Your task to perform on an android device: Search for hotels in London Image 0: 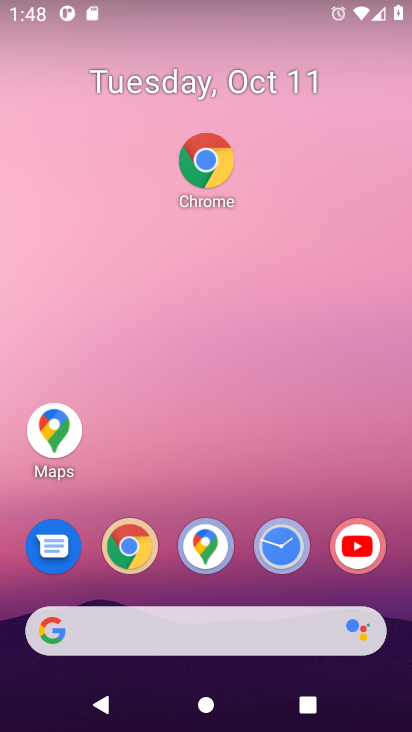
Step 0: click (122, 555)
Your task to perform on an android device: Search for hotels in London Image 1: 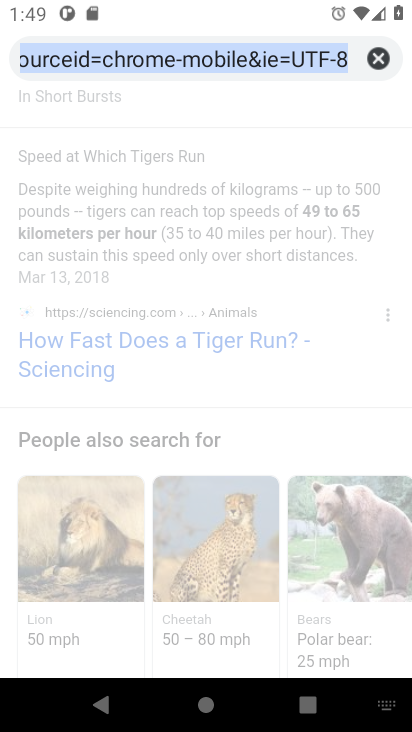
Step 1: type "hotels in London"
Your task to perform on an android device: Search for hotels in London Image 2: 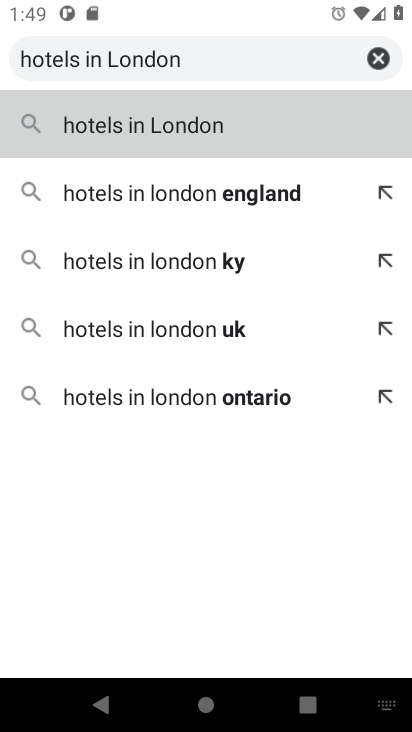
Step 2: press enter
Your task to perform on an android device: Search for hotels in London Image 3: 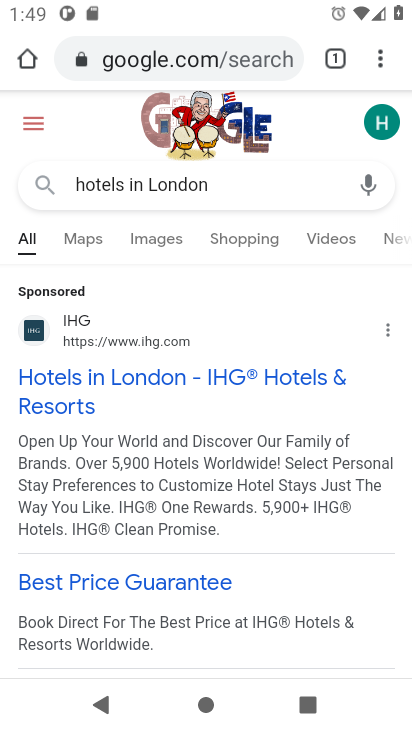
Step 3: drag from (216, 522) to (230, 354)
Your task to perform on an android device: Search for hotels in London Image 4: 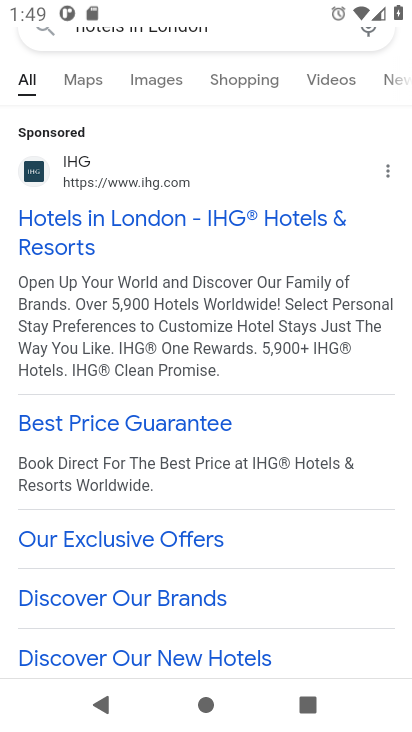
Step 4: click (230, 354)
Your task to perform on an android device: Search for hotels in London Image 5: 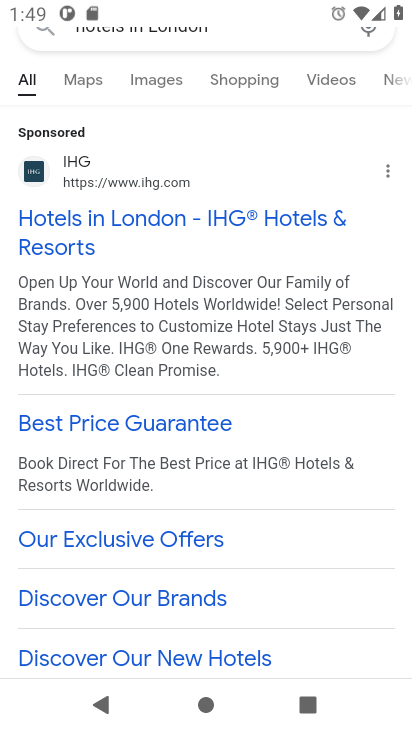
Step 5: click (233, 348)
Your task to perform on an android device: Search for hotels in London Image 6: 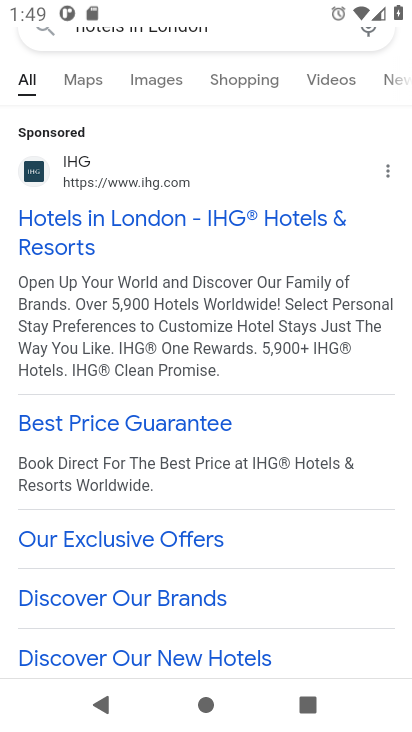
Step 6: drag from (235, 330) to (227, 225)
Your task to perform on an android device: Search for hotels in London Image 7: 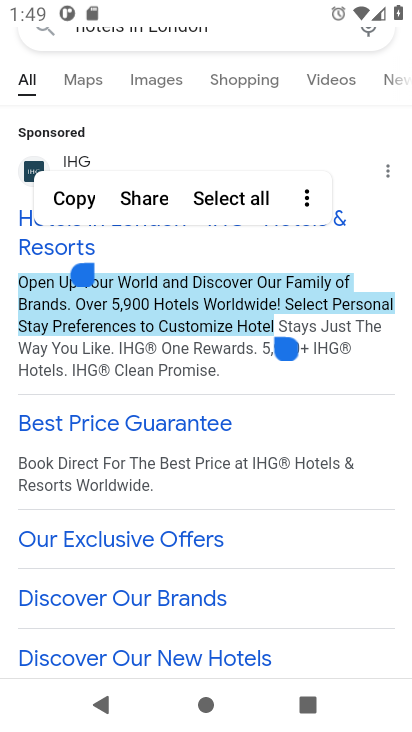
Step 7: drag from (340, 620) to (343, 426)
Your task to perform on an android device: Search for hotels in London Image 8: 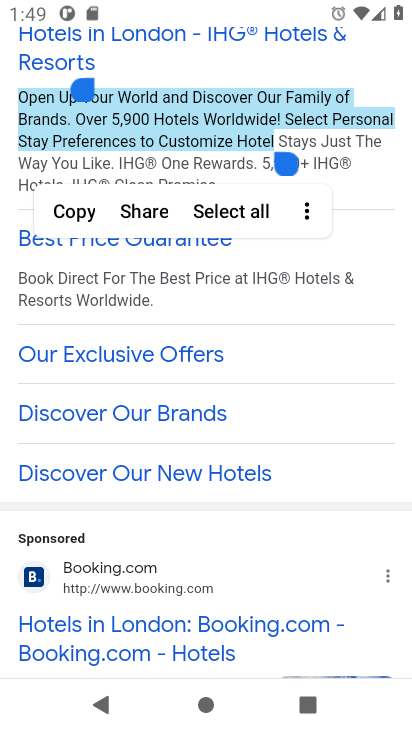
Step 8: click (336, 313)
Your task to perform on an android device: Search for hotels in London Image 9: 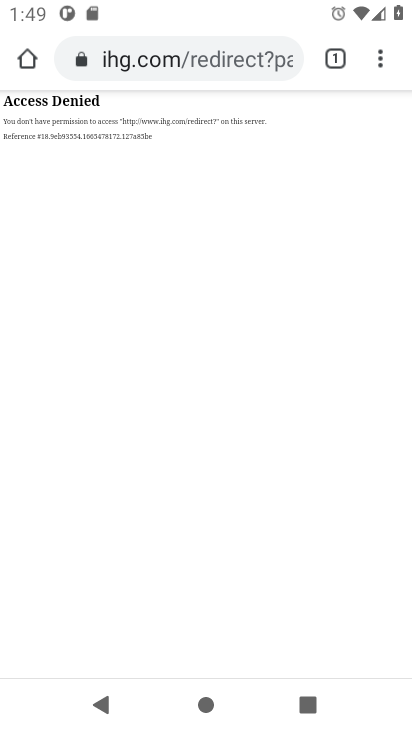
Step 9: press back button
Your task to perform on an android device: Search for hotels in London Image 10: 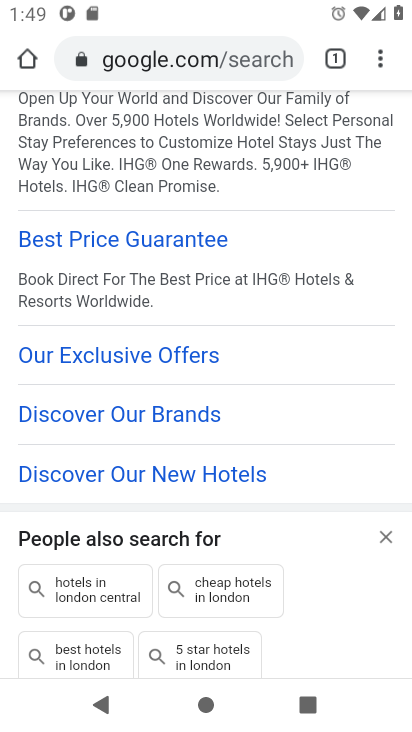
Step 10: click (221, 622)
Your task to perform on an android device: Search for hotels in London Image 11: 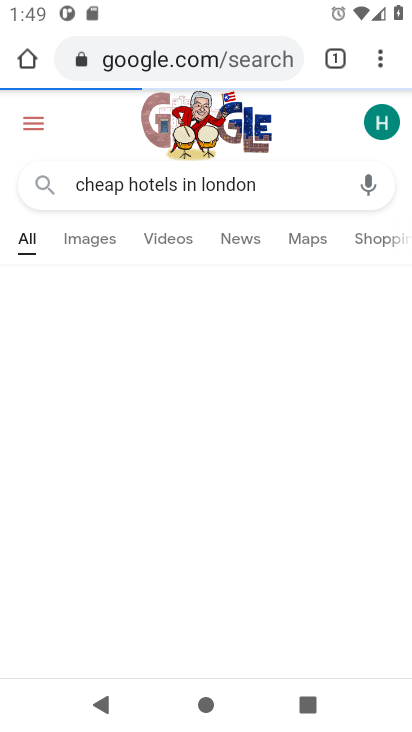
Step 11: drag from (251, 584) to (270, 404)
Your task to perform on an android device: Search for hotels in London Image 12: 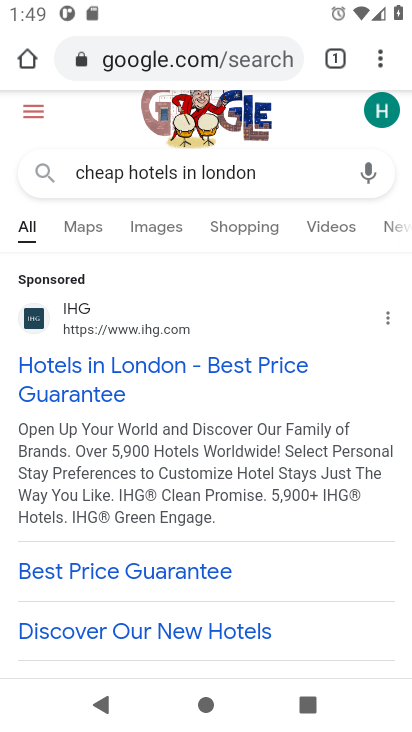
Step 12: press back button
Your task to perform on an android device: Search for hotels in London Image 13: 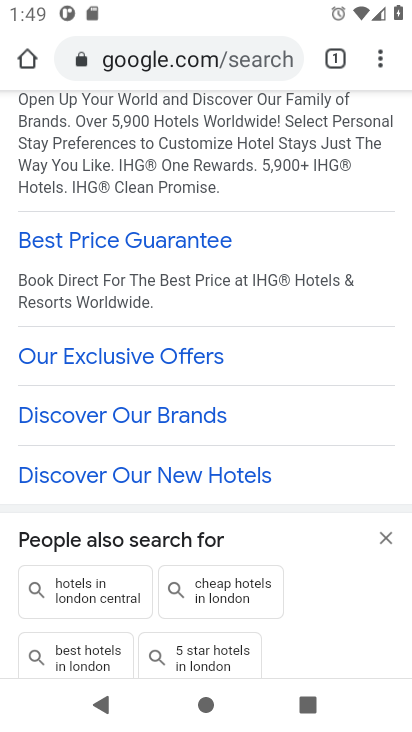
Step 13: drag from (338, 480) to (340, 150)
Your task to perform on an android device: Search for hotels in London Image 14: 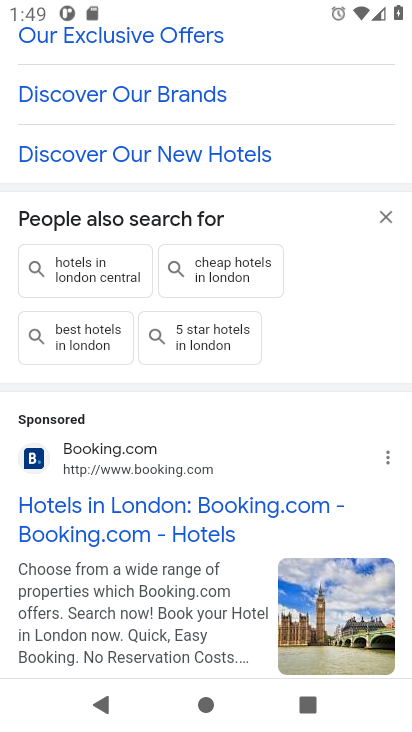
Step 14: click (139, 579)
Your task to perform on an android device: Search for hotels in London Image 15: 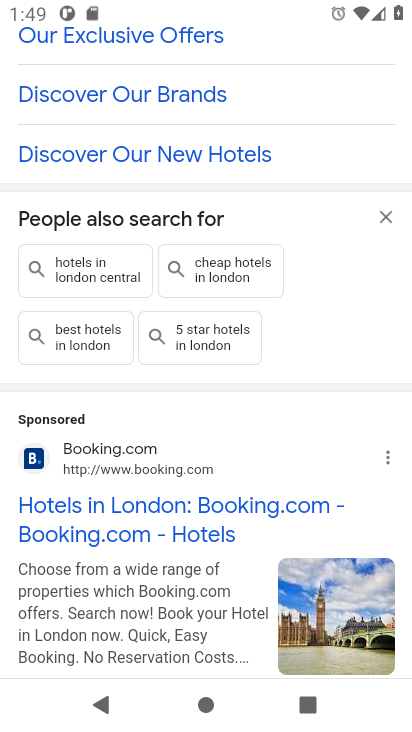
Step 15: click (149, 528)
Your task to perform on an android device: Search for hotels in London Image 16: 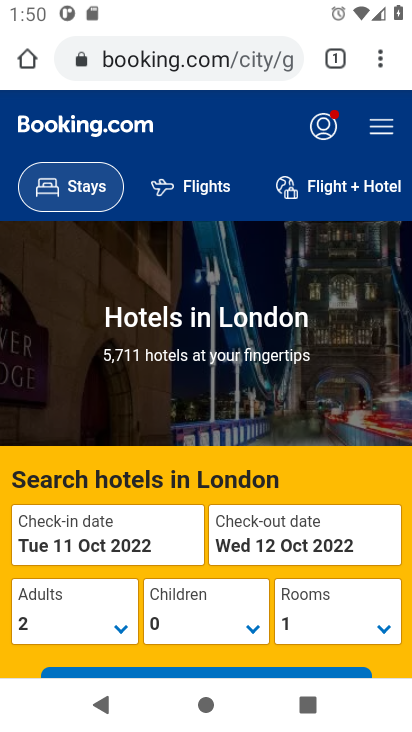
Step 16: task complete